Your task to perform on an android device: Find coffee shops on Maps Image 0: 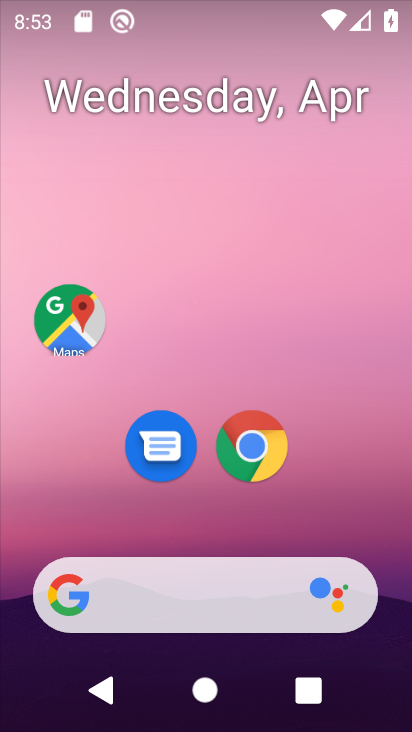
Step 0: drag from (401, 443) to (410, 136)
Your task to perform on an android device: Find coffee shops on Maps Image 1: 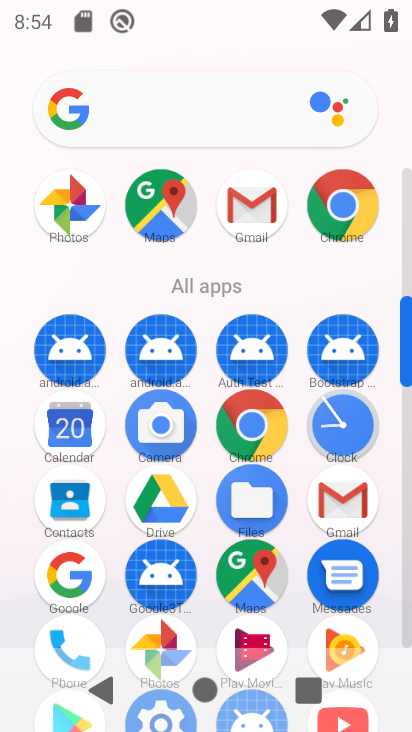
Step 1: click (256, 569)
Your task to perform on an android device: Find coffee shops on Maps Image 2: 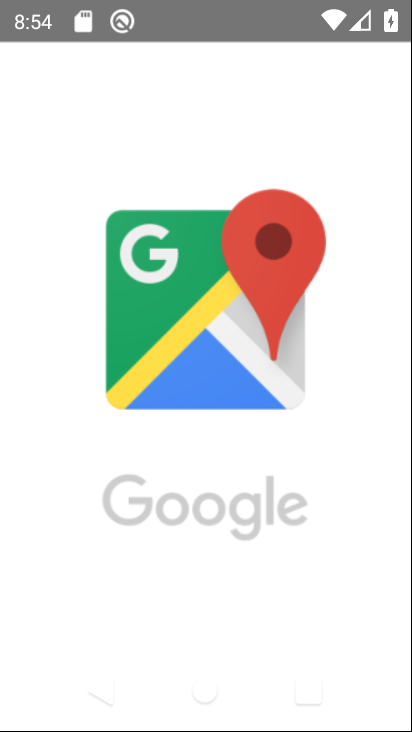
Step 2: task complete